Your task to perform on an android device: stop showing notifications on the lock screen Image 0: 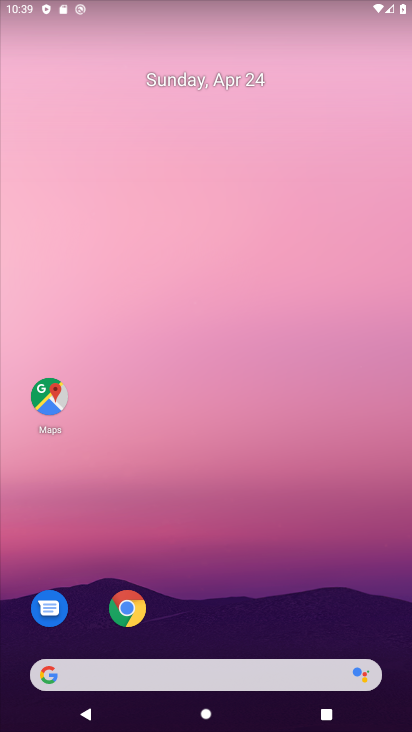
Step 0: drag from (272, 619) to (204, 29)
Your task to perform on an android device: stop showing notifications on the lock screen Image 1: 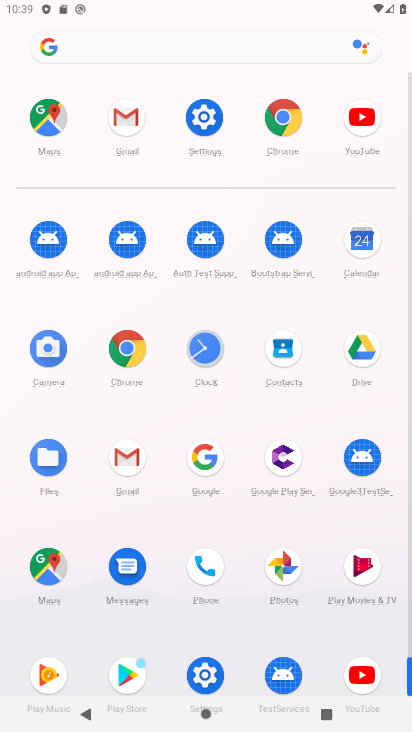
Step 1: click (204, 116)
Your task to perform on an android device: stop showing notifications on the lock screen Image 2: 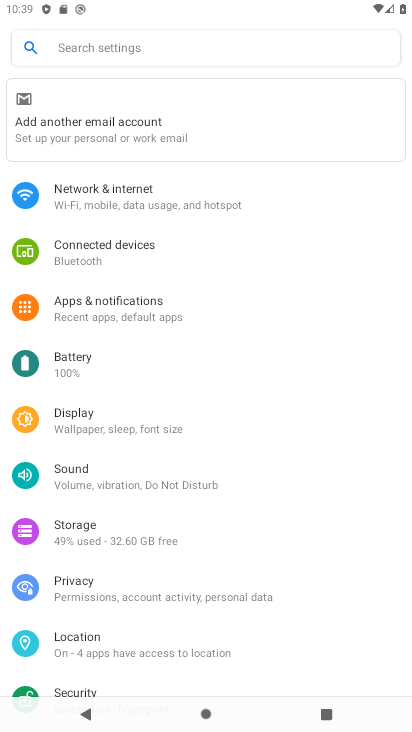
Step 2: click (142, 309)
Your task to perform on an android device: stop showing notifications on the lock screen Image 3: 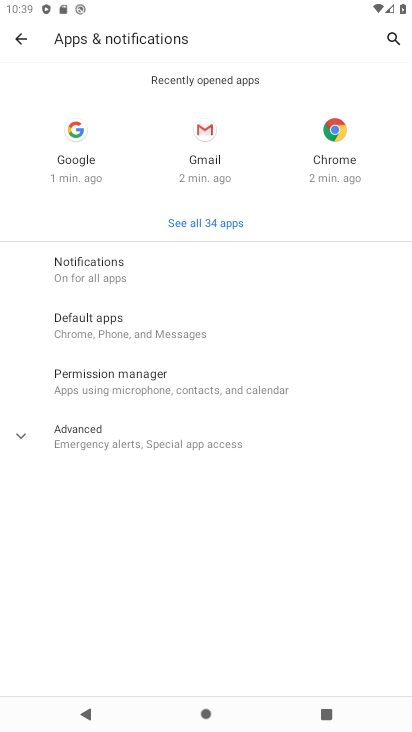
Step 3: click (134, 270)
Your task to perform on an android device: stop showing notifications on the lock screen Image 4: 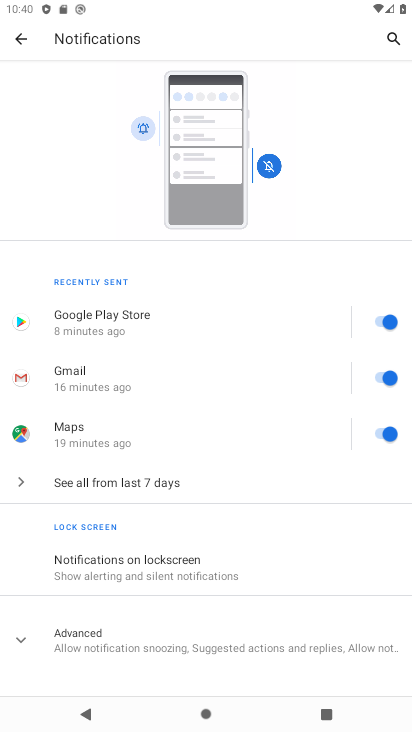
Step 4: click (92, 645)
Your task to perform on an android device: stop showing notifications on the lock screen Image 5: 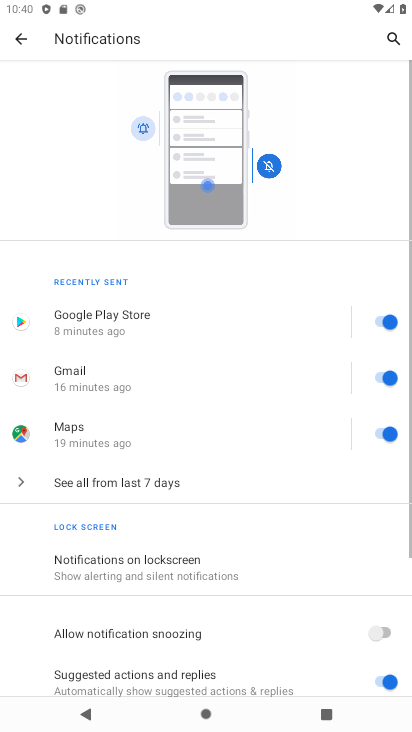
Step 5: drag from (242, 602) to (224, 254)
Your task to perform on an android device: stop showing notifications on the lock screen Image 6: 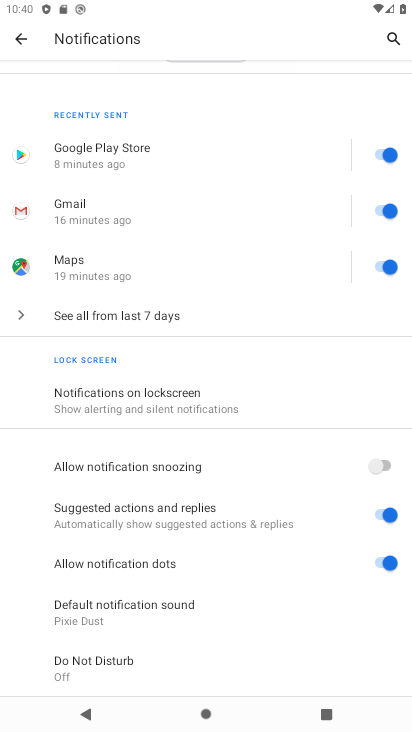
Step 6: click (156, 393)
Your task to perform on an android device: stop showing notifications on the lock screen Image 7: 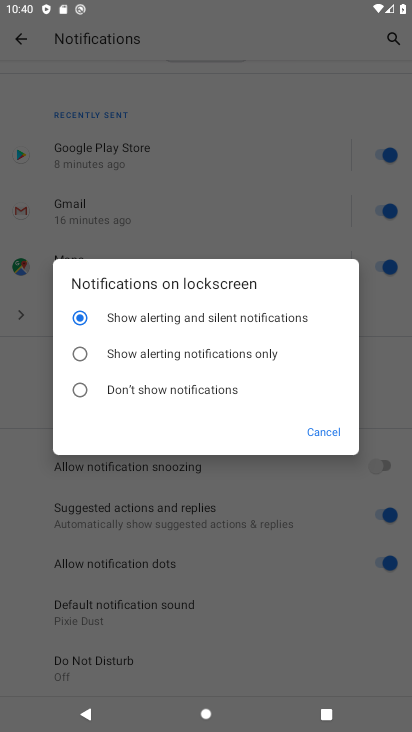
Step 7: click (156, 393)
Your task to perform on an android device: stop showing notifications on the lock screen Image 8: 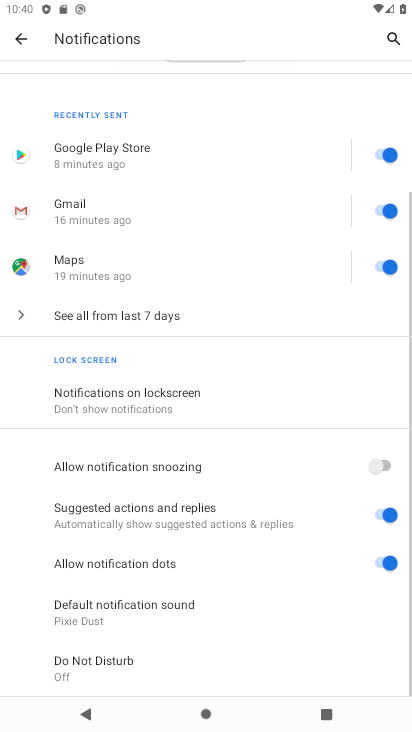
Step 8: task complete